Your task to perform on an android device: Search for Mexican restaurants on Maps Image 0: 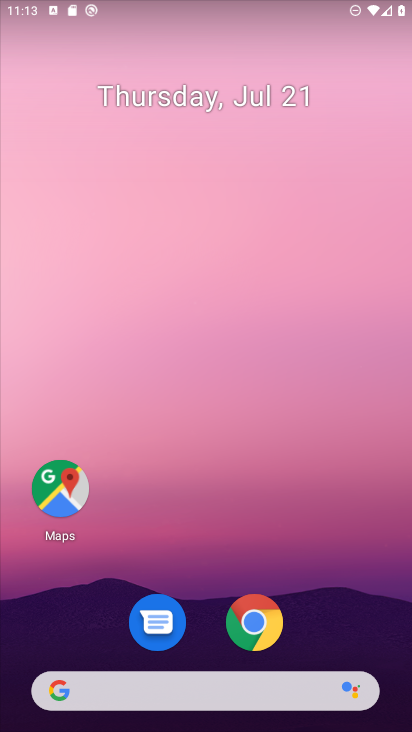
Step 0: click (63, 478)
Your task to perform on an android device: Search for Mexican restaurants on Maps Image 1: 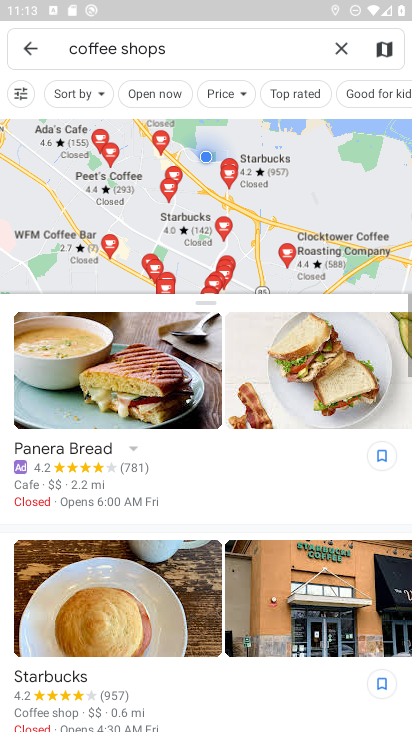
Step 1: click (339, 51)
Your task to perform on an android device: Search for Mexican restaurants on Maps Image 2: 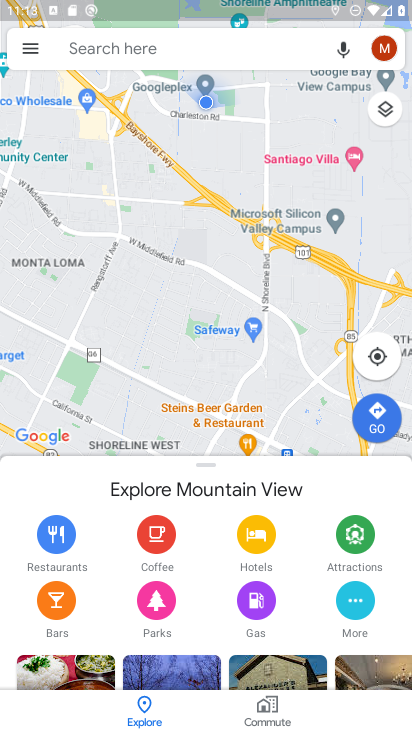
Step 2: click (261, 45)
Your task to perform on an android device: Search for Mexican restaurants on Maps Image 3: 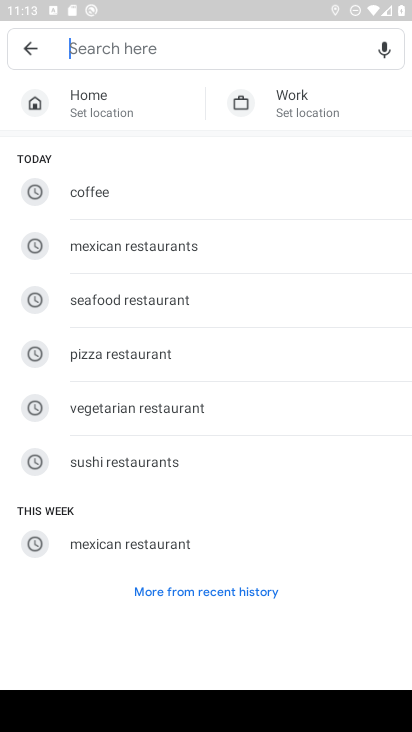
Step 3: click (175, 243)
Your task to perform on an android device: Search for Mexican restaurants on Maps Image 4: 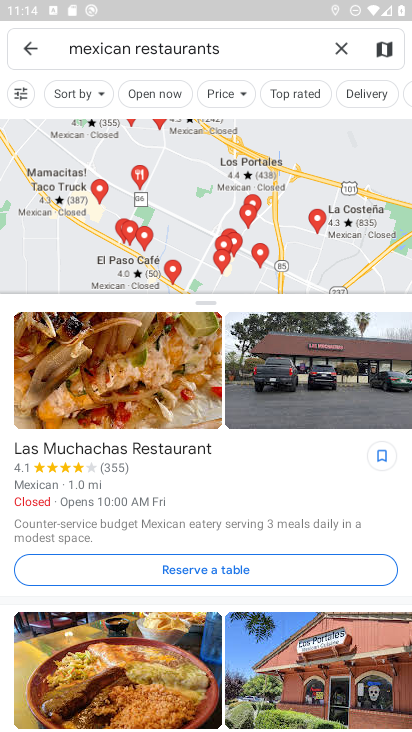
Step 4: task complete